Your task to perform on an android device: uninstall "Microsoft Outlook" Image 0: 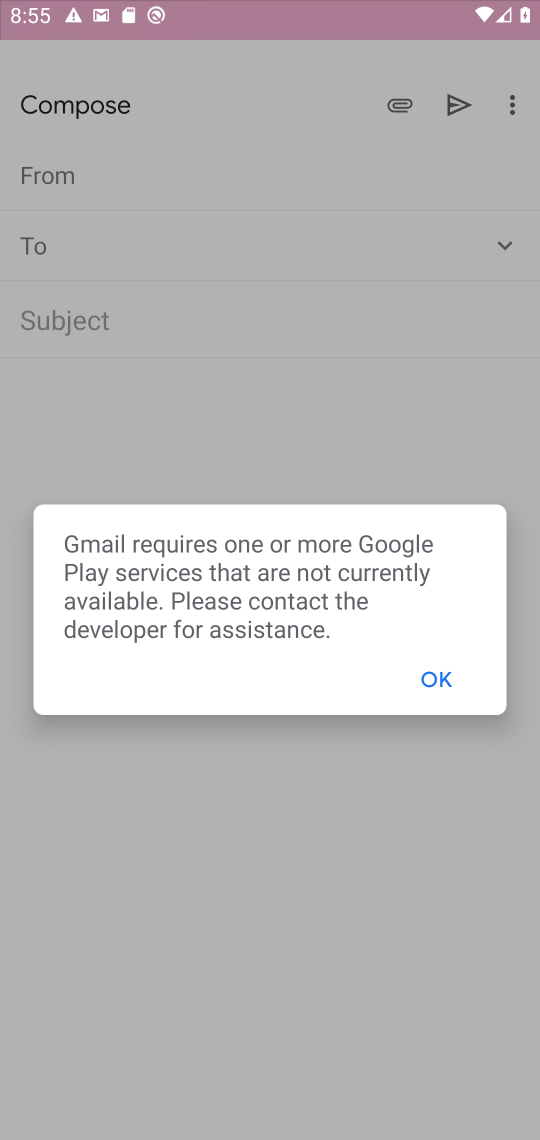
Step 0: click (218, 736)
Your task to perform on an android device: uninstall "Microsoft Outlook" Image 1: 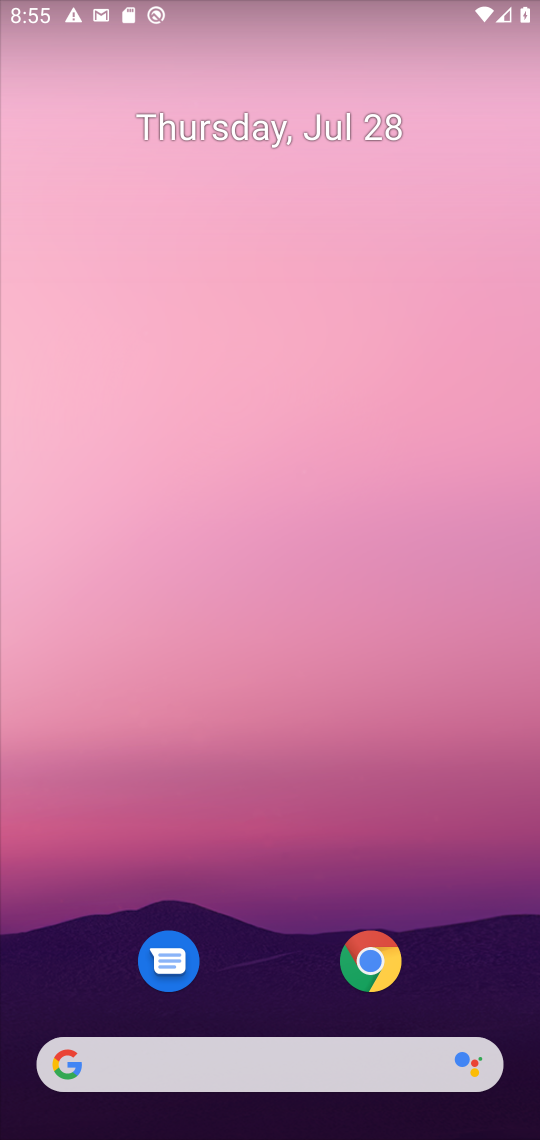
Step 1: drag from (269, 935) to (292, 46)
Your task to perform on an android device: uninstall "Microsoft Outlook" Image 2: 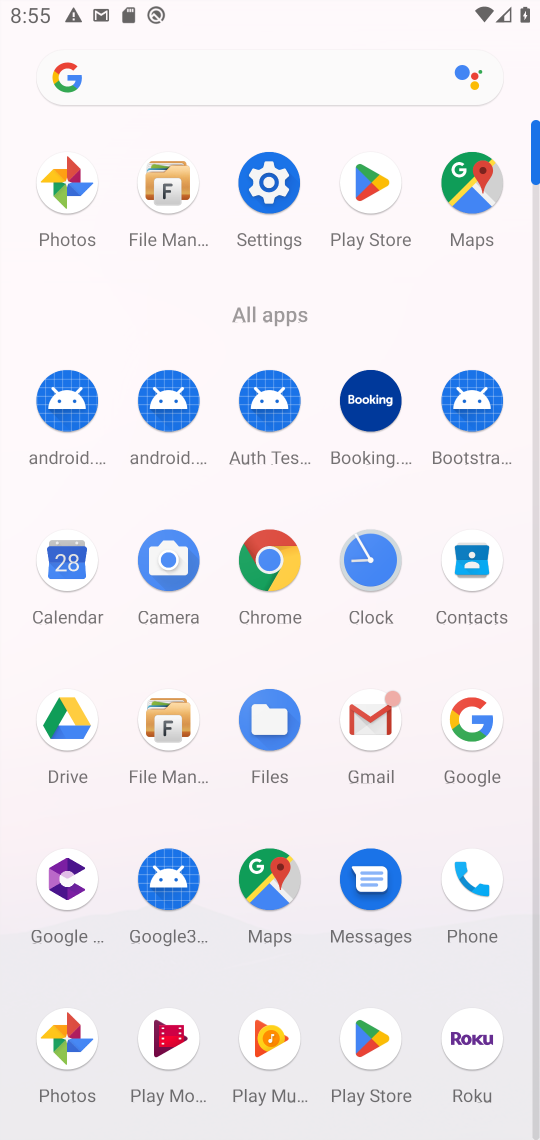
Step 2: click (370, 196)
Your task to perform on an android device: uninstall "Microsoft Outlook" Image 3: 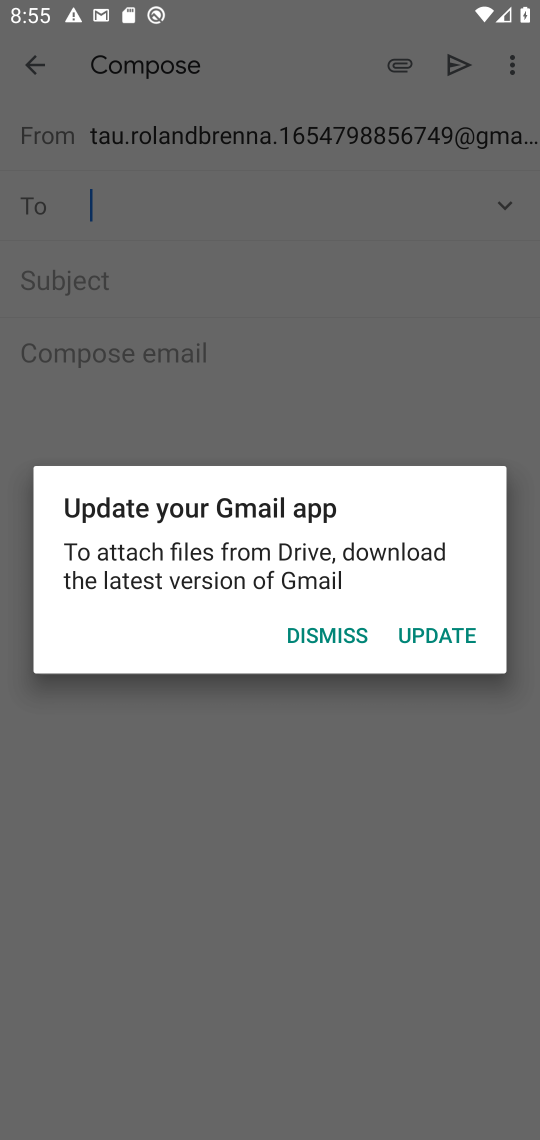
Step 3: press home button
Your task to perform on an android device: uninstall "Microsoft Outlook" Image 4: 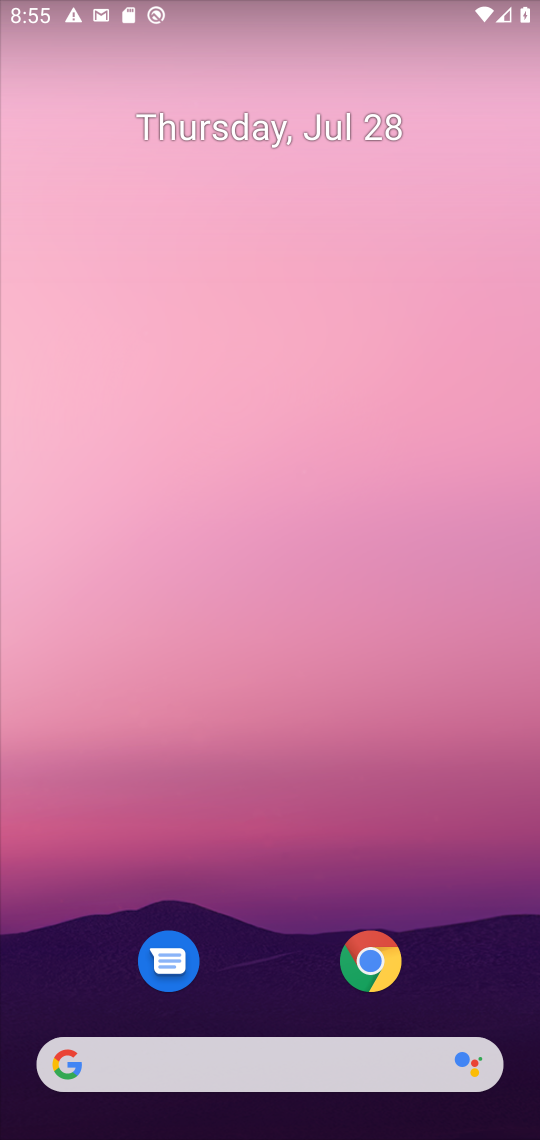
Step 4: drag from (195, 769) to (193, 171)
Your task to perform on an android device: uninstall "Microsoft Outlook" Image 5: 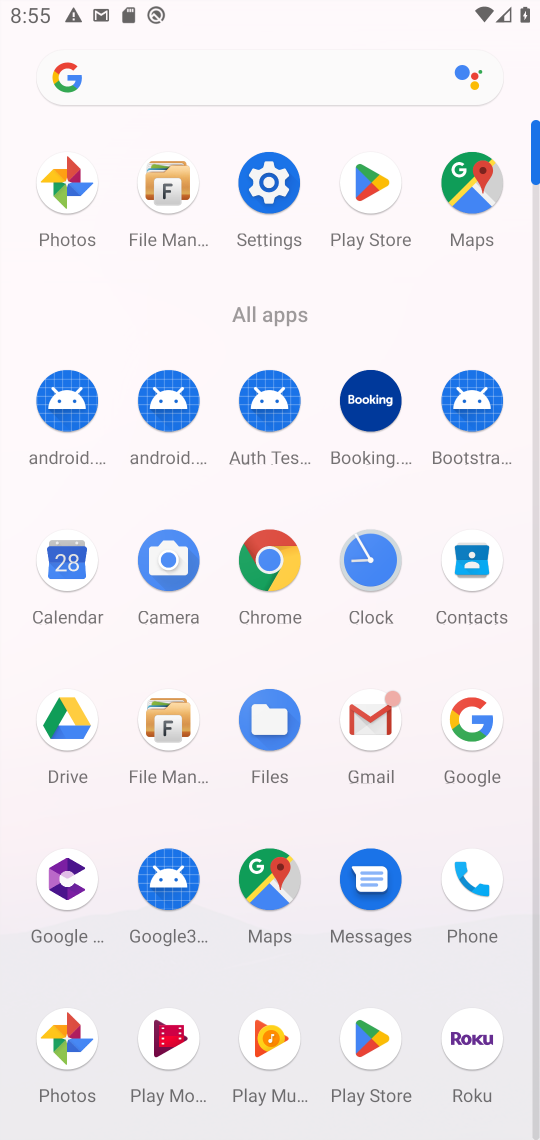
Step 5: click (374, 187)
Your task to perform on an android device: uninstall "Microsoft Outlook" Image 6: 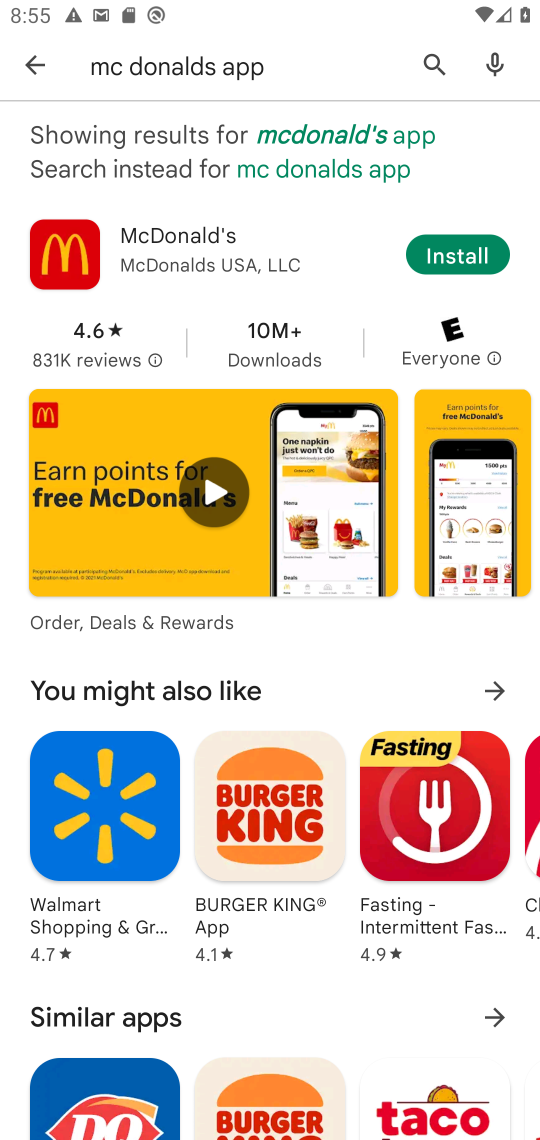
Step 6: click (429, 66)
Your task to perform on an android device: uninstall "Microsoft Outlook" Image 7: 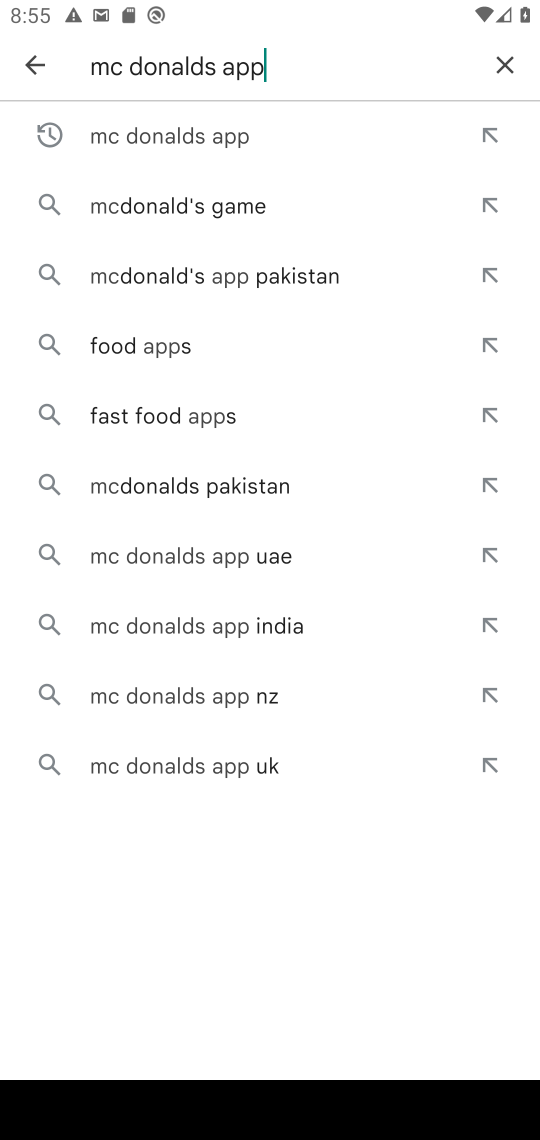
Step 7: click (511, 53)
Your task to perform on an android device: uninstall "Microsoft Outlook" Image 8: 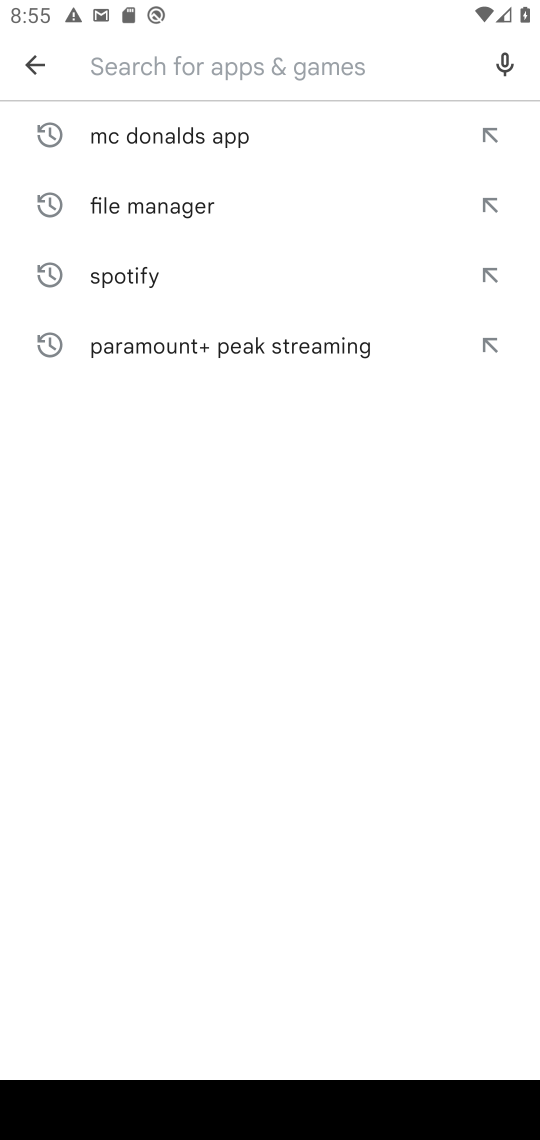
Step 8: type "microsoft outlook"
Your task to perform on an android device: uninstall "Microsoft Outlook" Image 9: 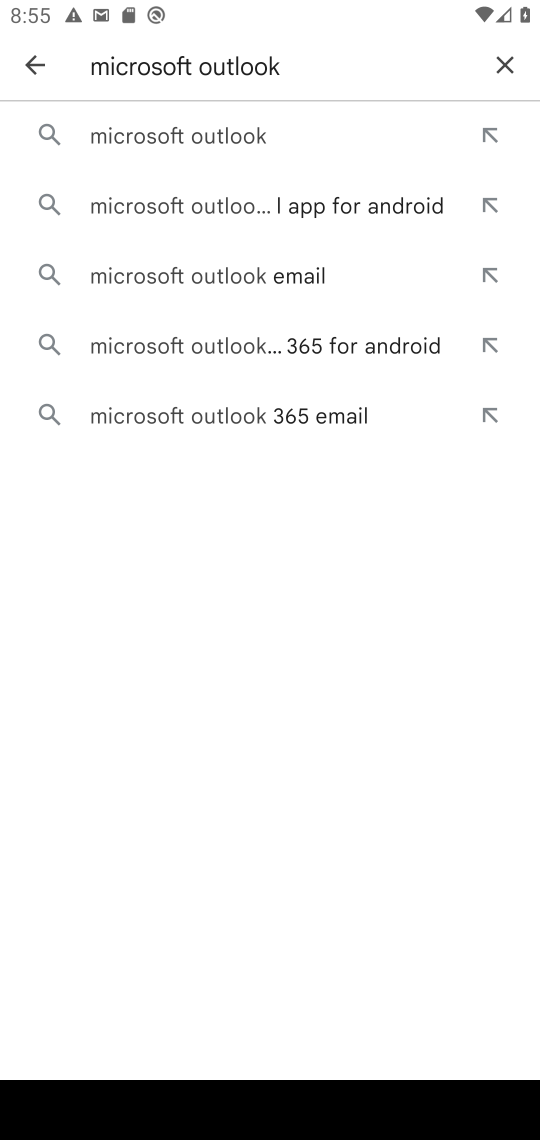
Step 9: click (319, 131)
Your task to perform on an android device: uninstall "Microsoft Outlook" Image 10: 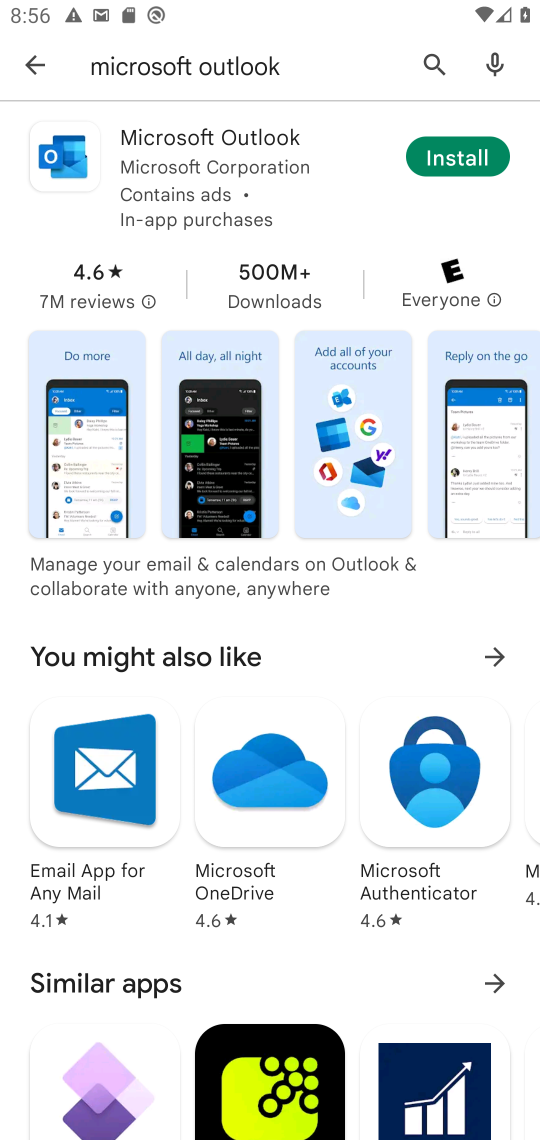
Step 10: task complete